Your task to perform on an android device: delete browsing data in the chrome app Image 0: 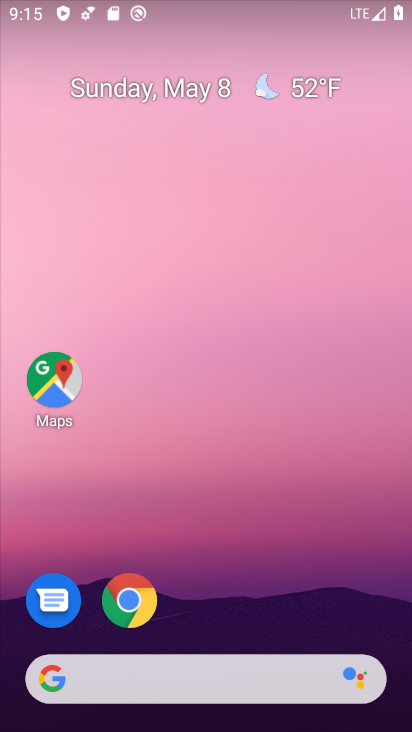
Step 0: click (133, 603)
Your task to perform on an android device: delete browsing data in the chrome app Image 1: 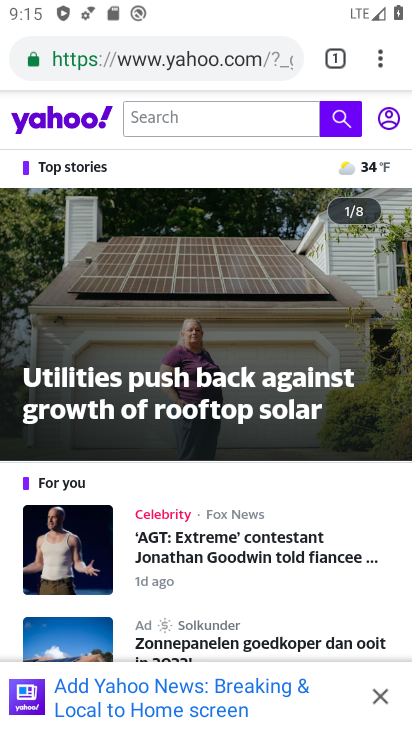
Step 1: drag from (381, 58) to (178, 618)
Your task to perform on an android device: delete browsing data in the chrome app Image 2: 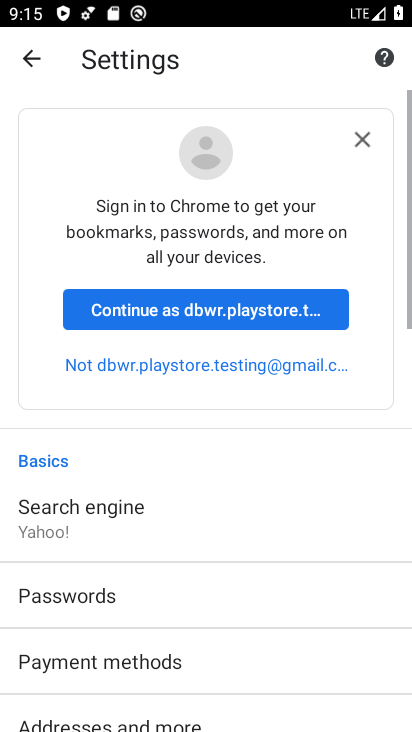
Step 2: drag from (188, 580) to (170, 111)
Your task to perform on an android device: delete browsing data in the chrome app Image 3: 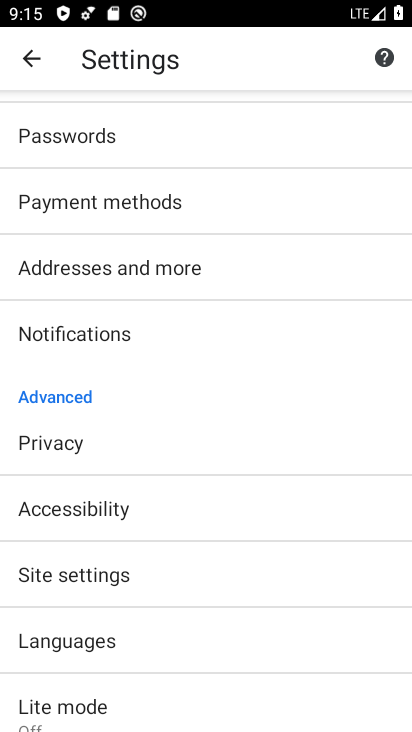
Step 3: click (59, 445)
Your task to perform on an android device: delete browsing data in the chrome app Image 4: 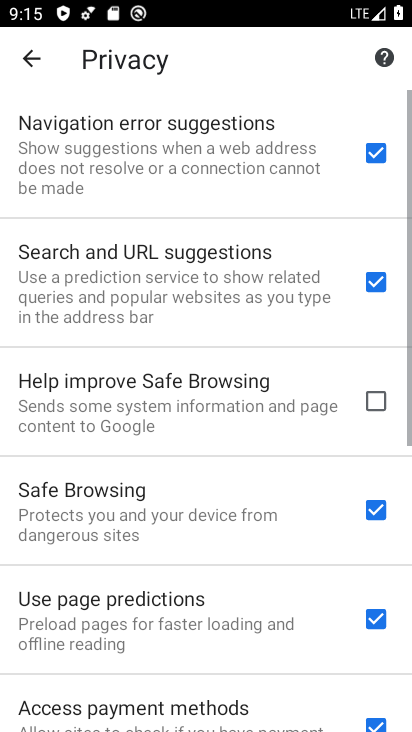
Step 4: drag from (193, 543) to (198, 86)
Your task to perform on an android device: delete browsing data in the chrome app Image 5: 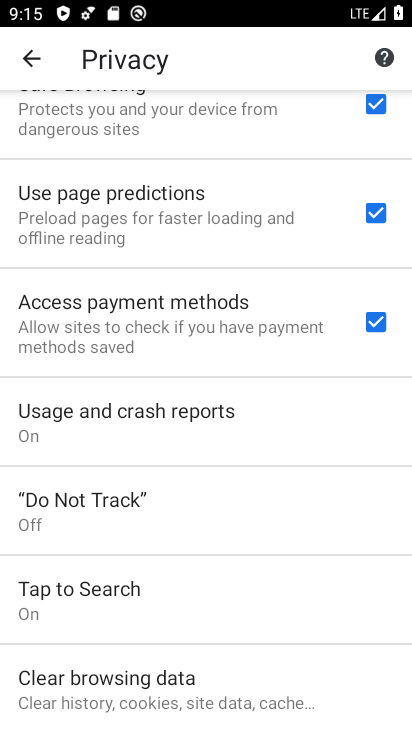
Step 5: drag from (159, 560) to (170, 174)
Your task to perform on an android device: delete browsing data in the chrome app Image 6: 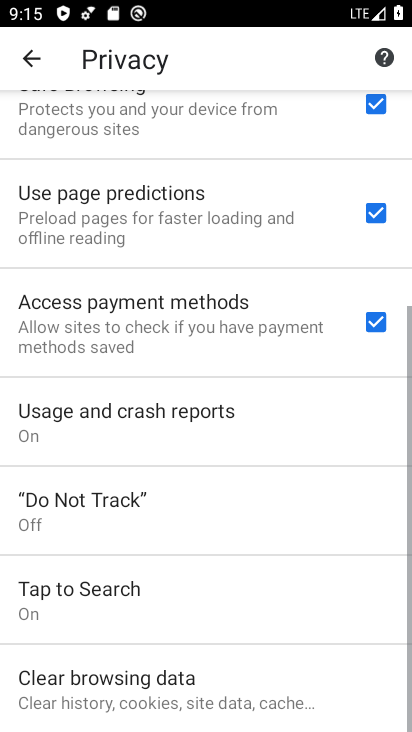
Step 6: click (127, 695)
Your task to perform on an android device: delete browsing data in the chrome app Image 7: 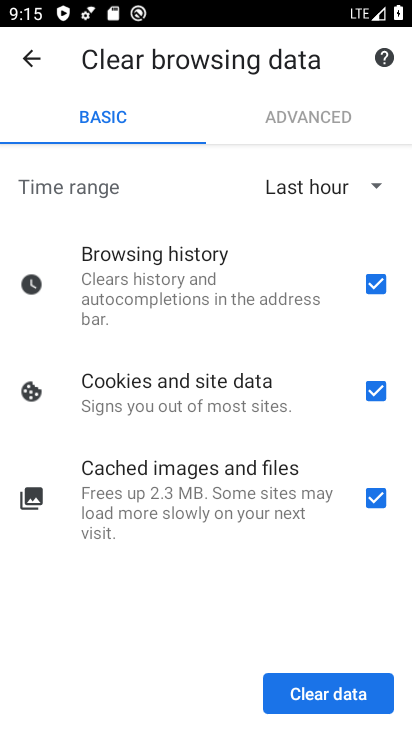
Step 7: click (382, 385)
Your task to perform on an android device: delete browsing data in the chrome app Image 8: 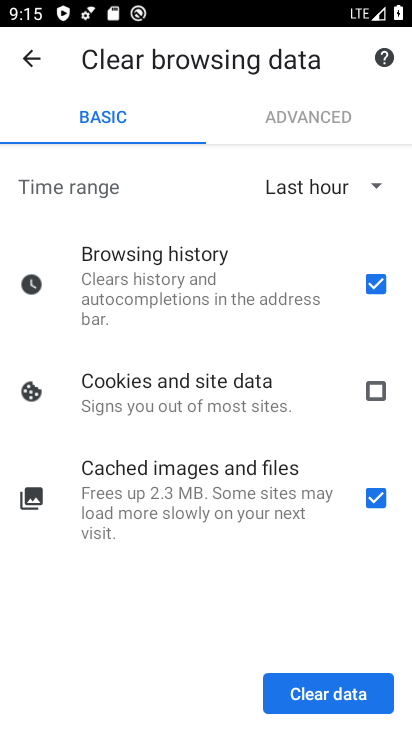
Step 8: click (383, 505)
Your task to perform on an android device: delete browsing data in the chrome app Image 9: 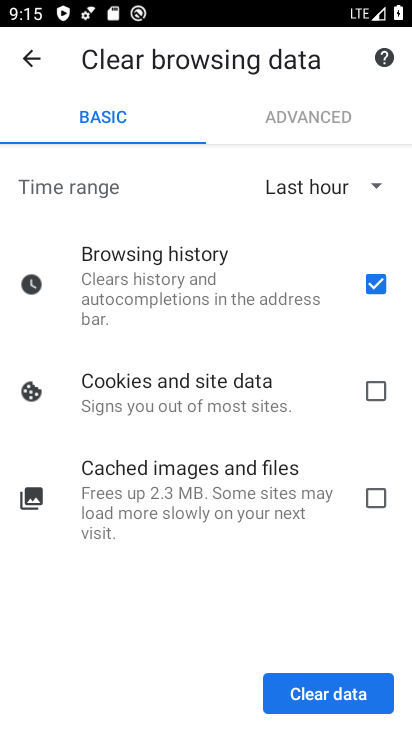
Step 9: click (334, 685)
Your task to perform on an android device: delete browsing data in the chrome app Image 10: 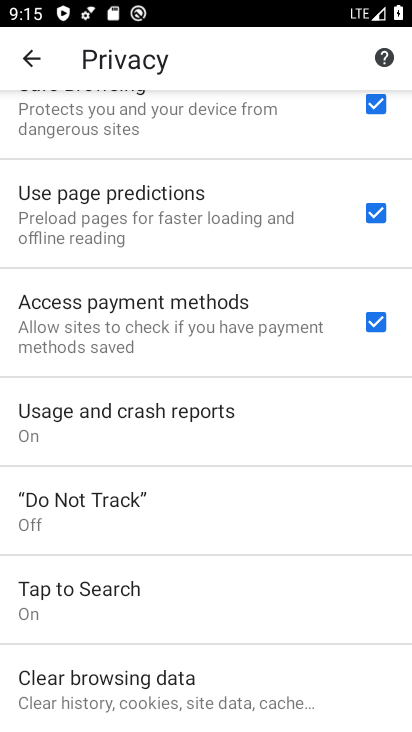
Step 10: task complete